Your task to perform on an android device: What's the weather like in Rio de Janeiro? Image 0: 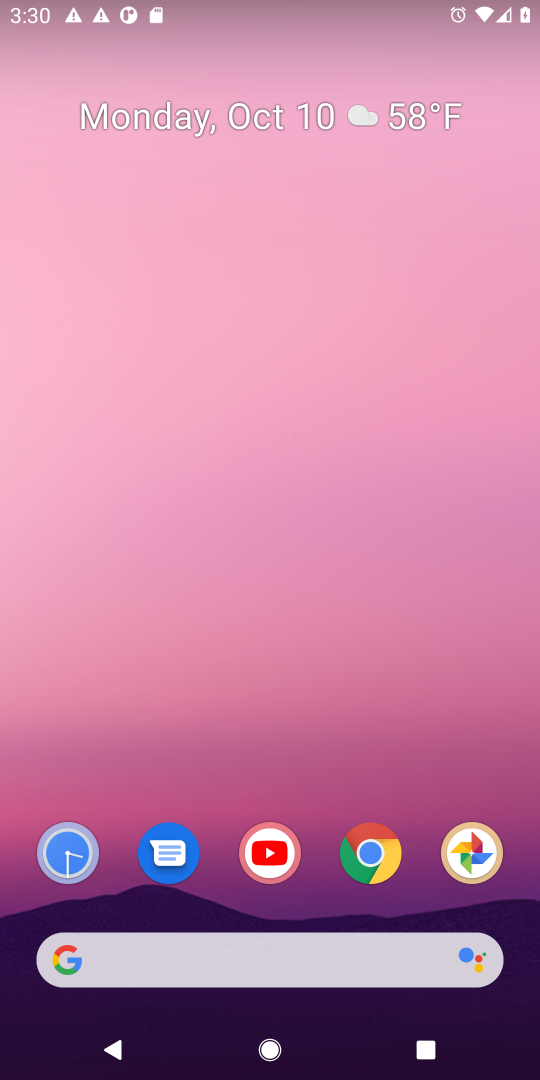
Step 0: drag from (342, 793) to (421, 58)
Your task to perform on an android device: What's the weather like in Rio de Janeiro? Image 1: 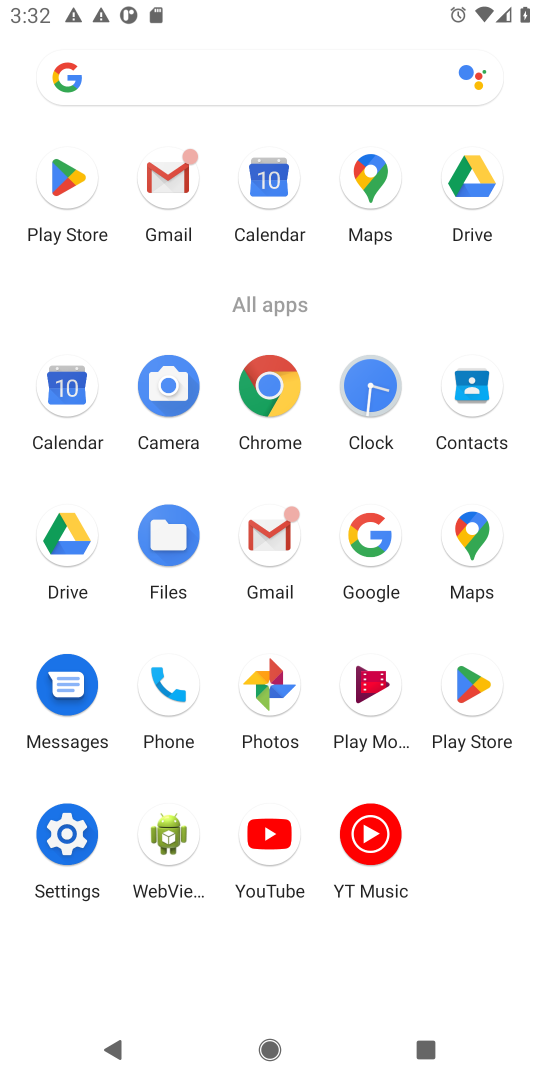
Step 1: click (269, 380)
Your task to perform on an android device: What's the weather like in Rio de Janeiro? Image 2: 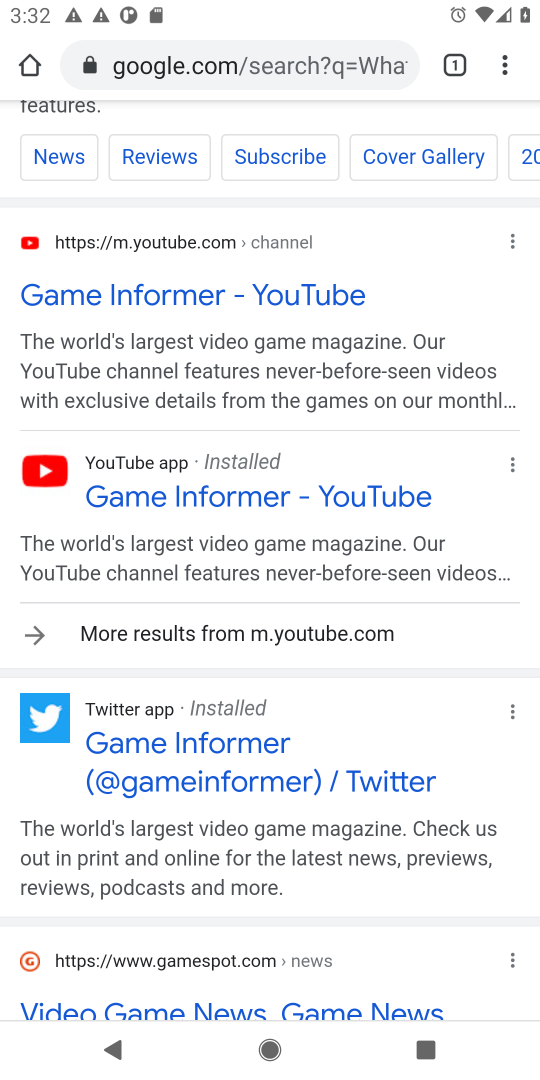
Step 2: drag from (309, 175) to (228, 893)
Your task to perform on an android device: What's the weather like in Rio de Janeiro? Image 3: 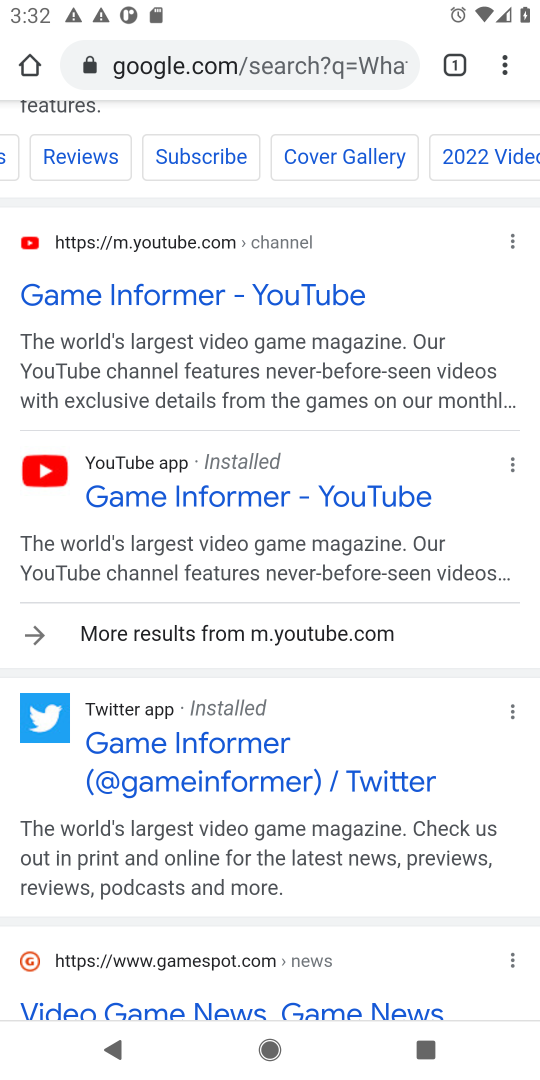
Step 3: click (211, 60)
Your task to perform on an android device: What's the weather like in Rio de Janeiro? Image 4: 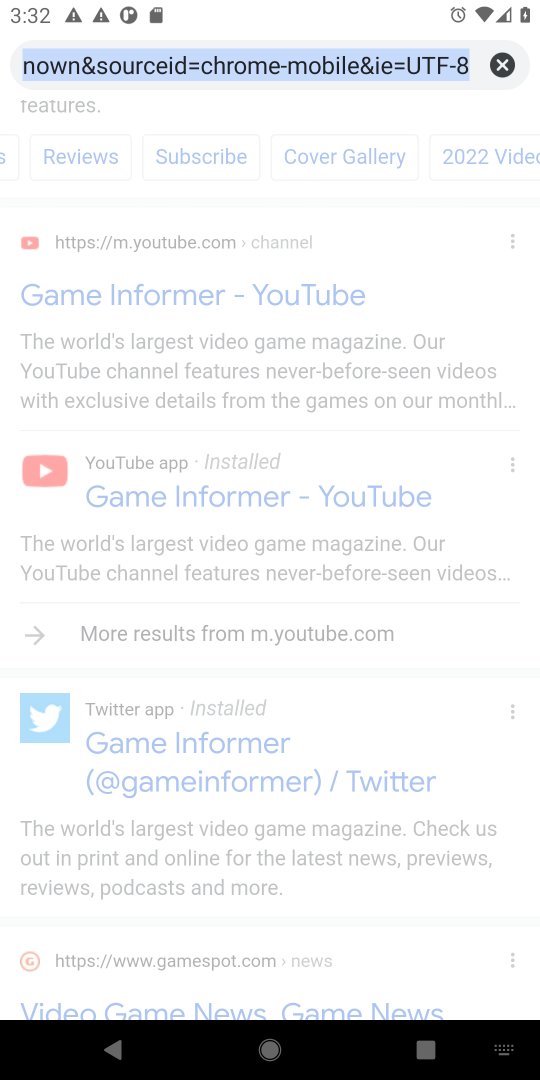
Step 4: click (506, 57)
Your task to perform on an android device: What's the weather like in Rio de Janeiro? Image 5: 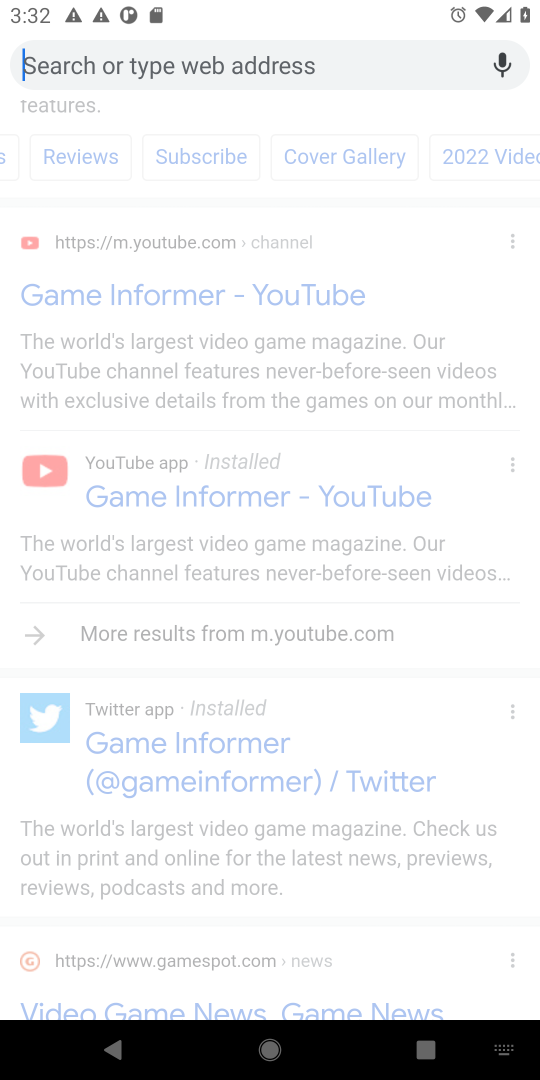
Step 5: type "What's the weather like in Rio de Janeiro?"
Your task to perform on an android device: What's the weather like in Rio de Janeiro? Image 6: 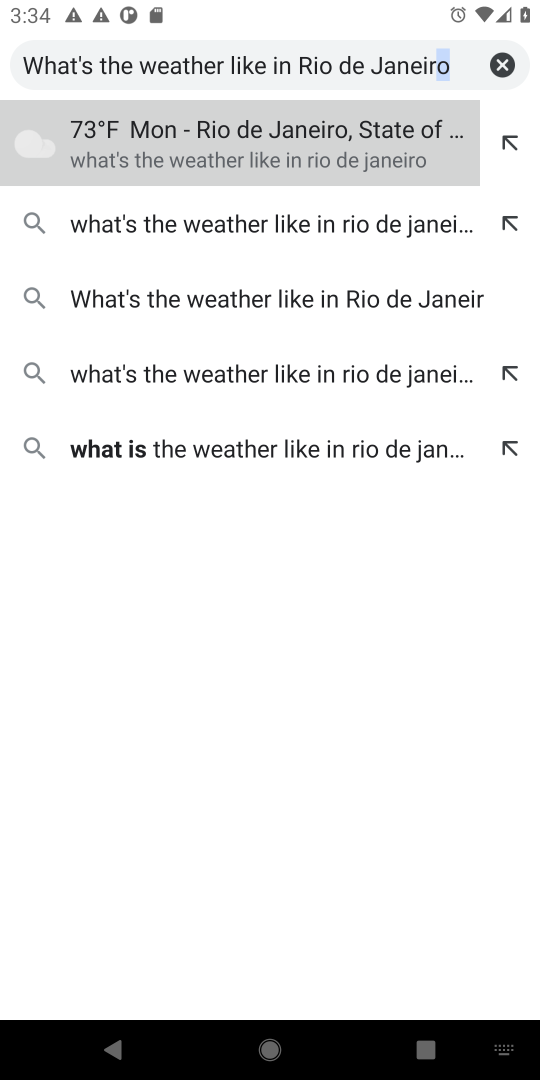
Step 6: click (189, 128)
Your task to perform on an android device: What's the weather like in Rio de Janeiro? Image 7: 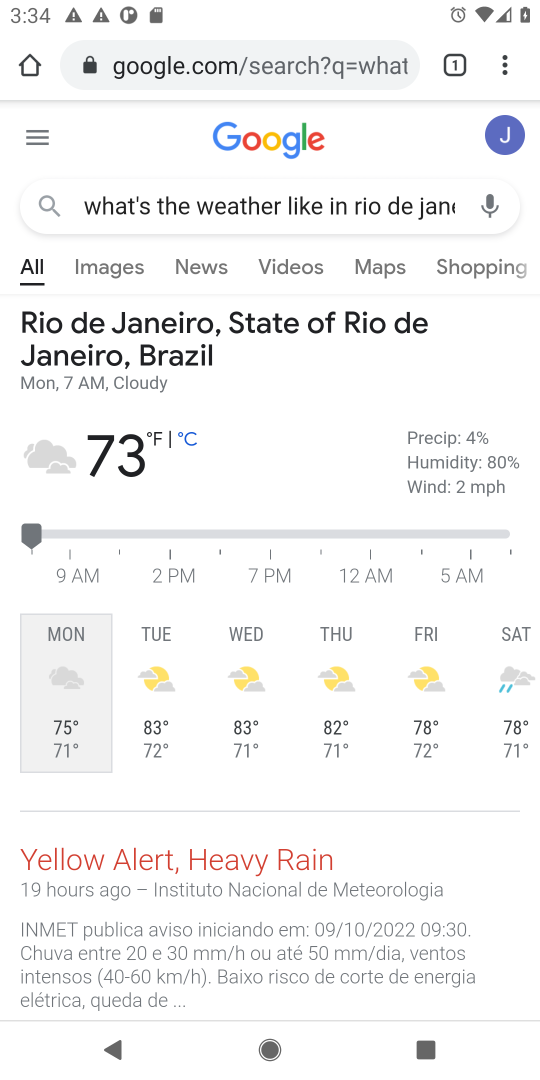
Step 7: task complete